Your task to perform on an android device: turn on bluetooth scan Image 0: 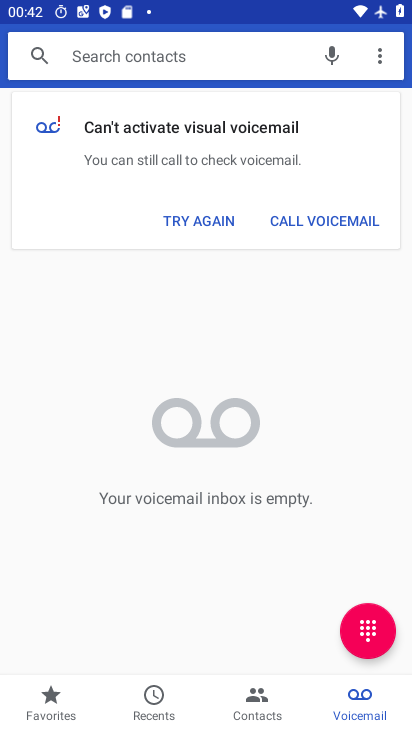
Step 0: press home button
Your task to perform on an android device: turn on bluetooth scan Image 1: 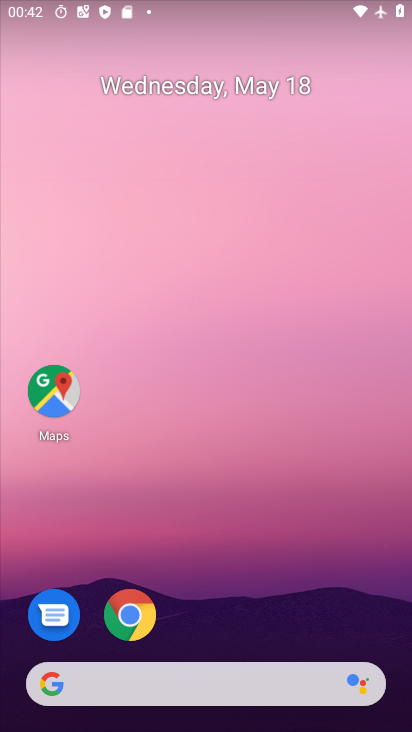
Step 1: drag from (235, 596) to (237, 204)
Your task to perform on an android device: turn on bluetooth scan Image 2: 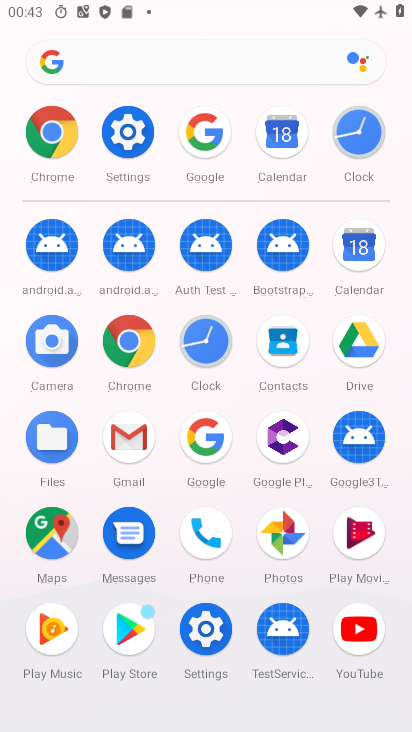
Step 2: click (119, 117)
Your task to perform on an android device: turn on bluetooth scan Image 3: 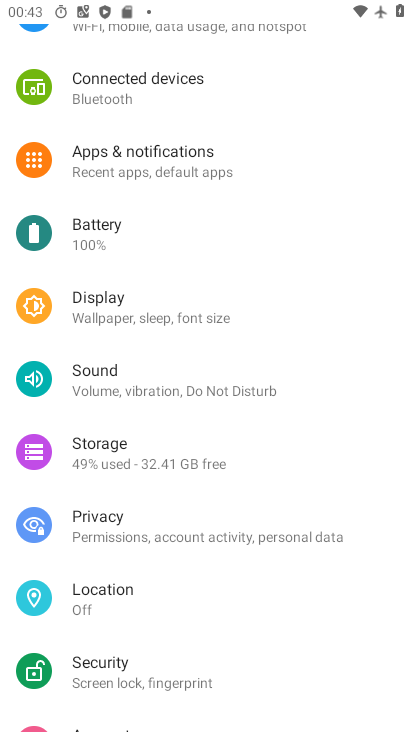
Step 3: click (150, 587)
Your task to perform on an android device: turn on bluetooth scan Image 4: 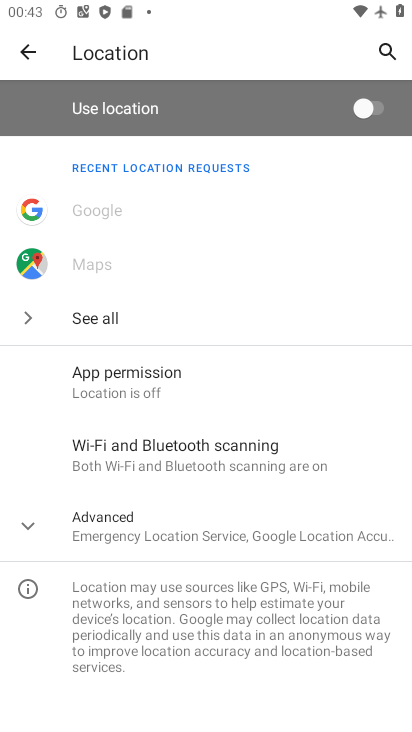
Step 4: click (191, 448)
Your task to perform on an android device: turn on bluetooth scan Image 5: 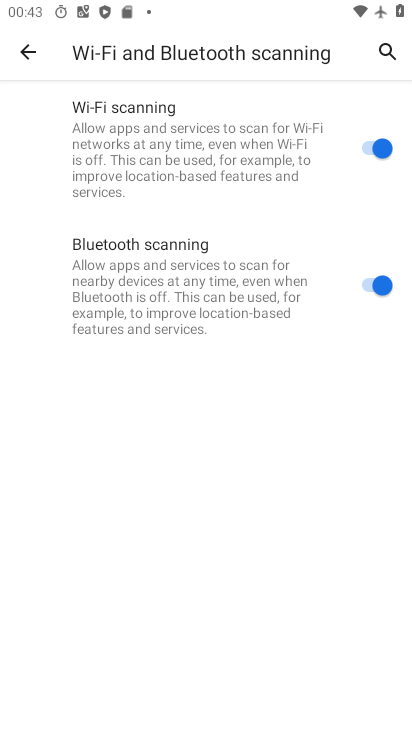
Step 5: task complete